Your task to perform on an android device: Turn off the flashlight Image 0: 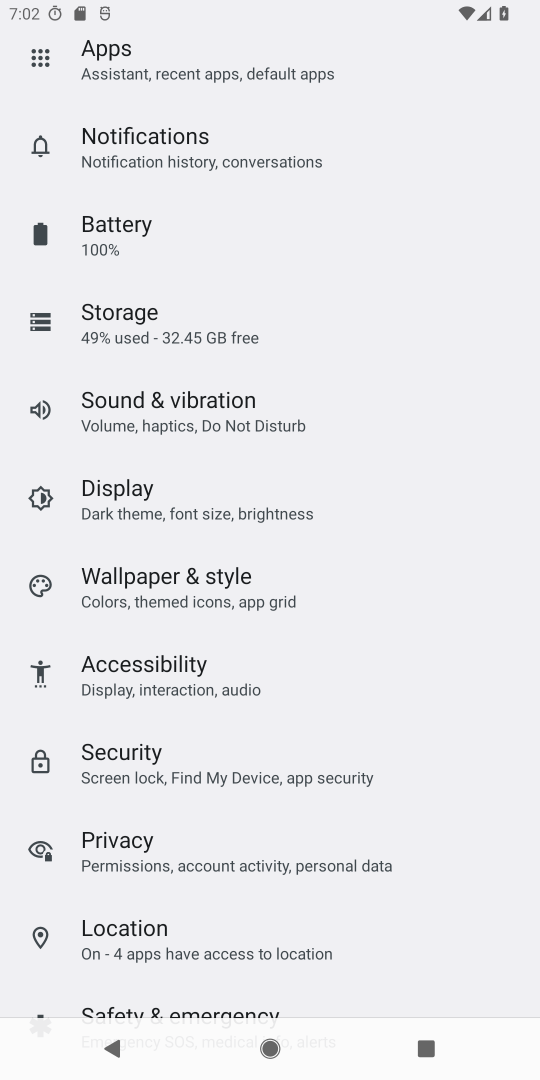
Step 0: drag from (238, 838) to (146, 89)
Your task to perform on an android device: Turn off the flashlight Image 1: 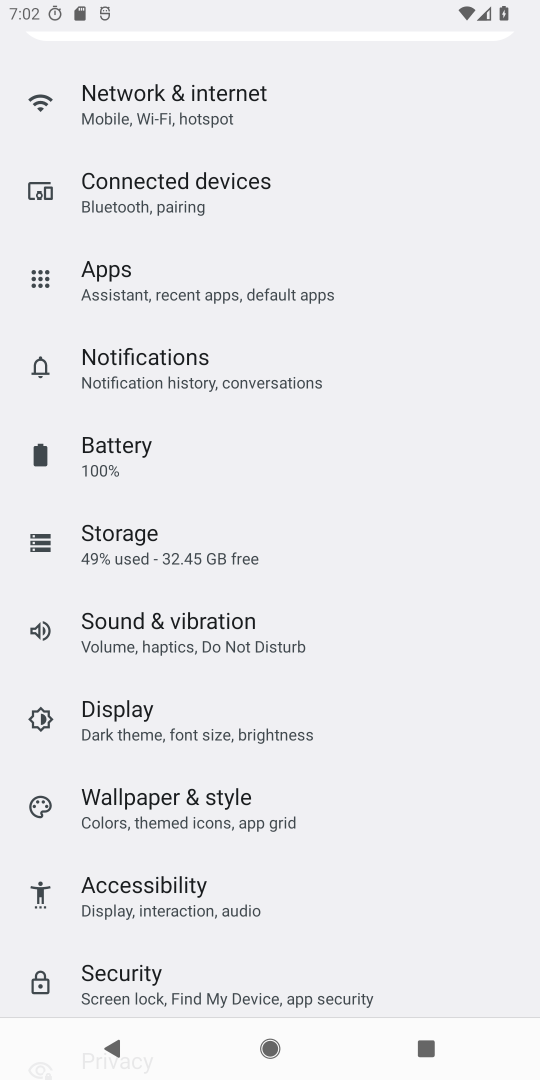
Step 1: task complete